Your task to perform on an android device: toggle pop-ups in chrome Image 0: 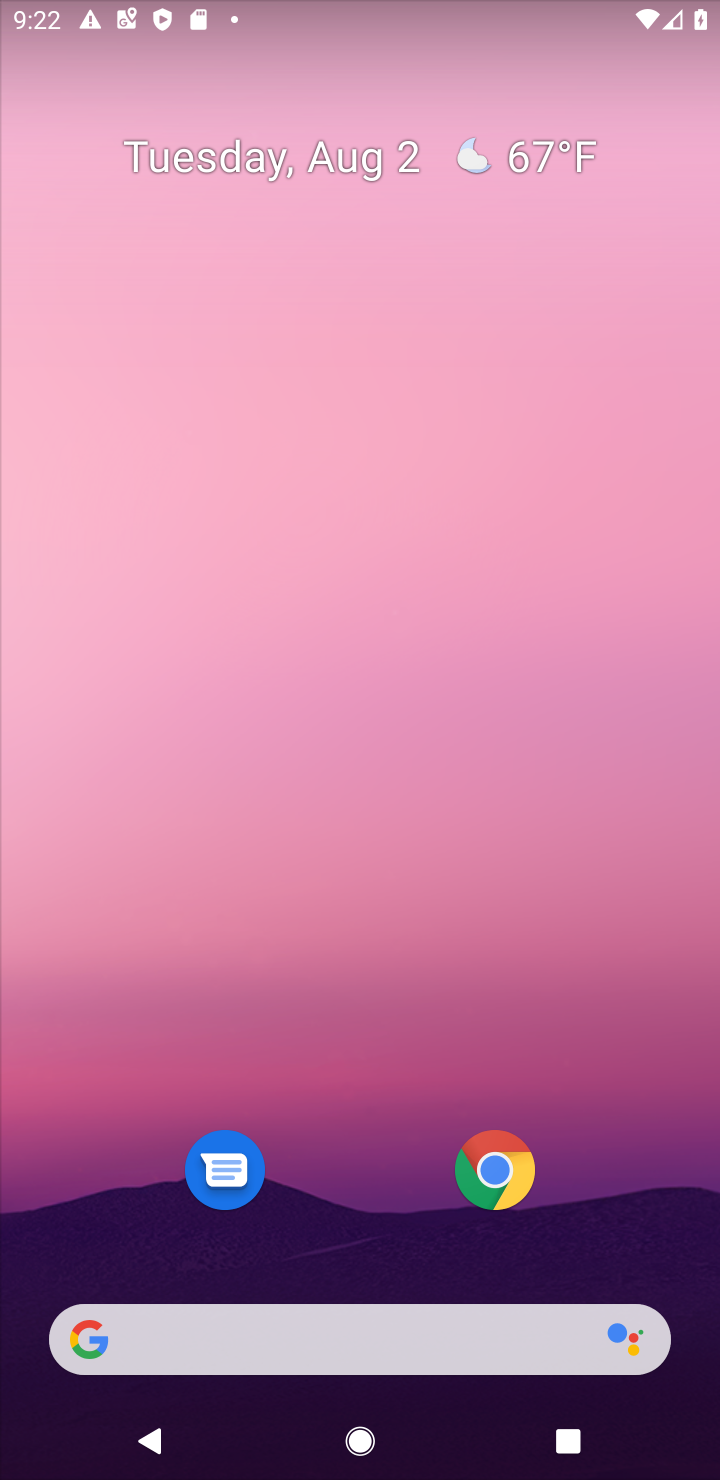
Step 0: click (491, 1181)
Your task to perform on an android device: toggle pop-ups in chrome Image 1: 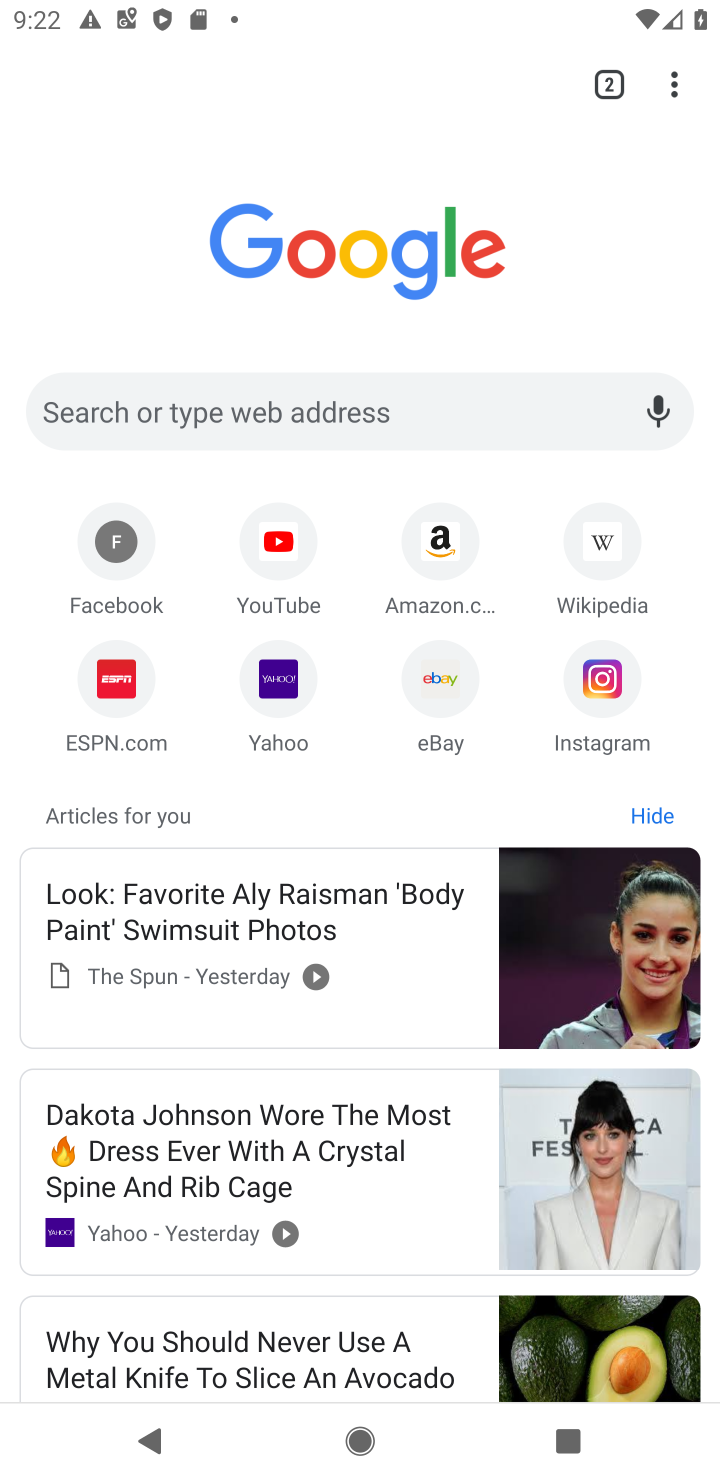
Step 1: click (667, 79)
Your task to perform on an android device: toggle pop-ups in chrome Image 2: 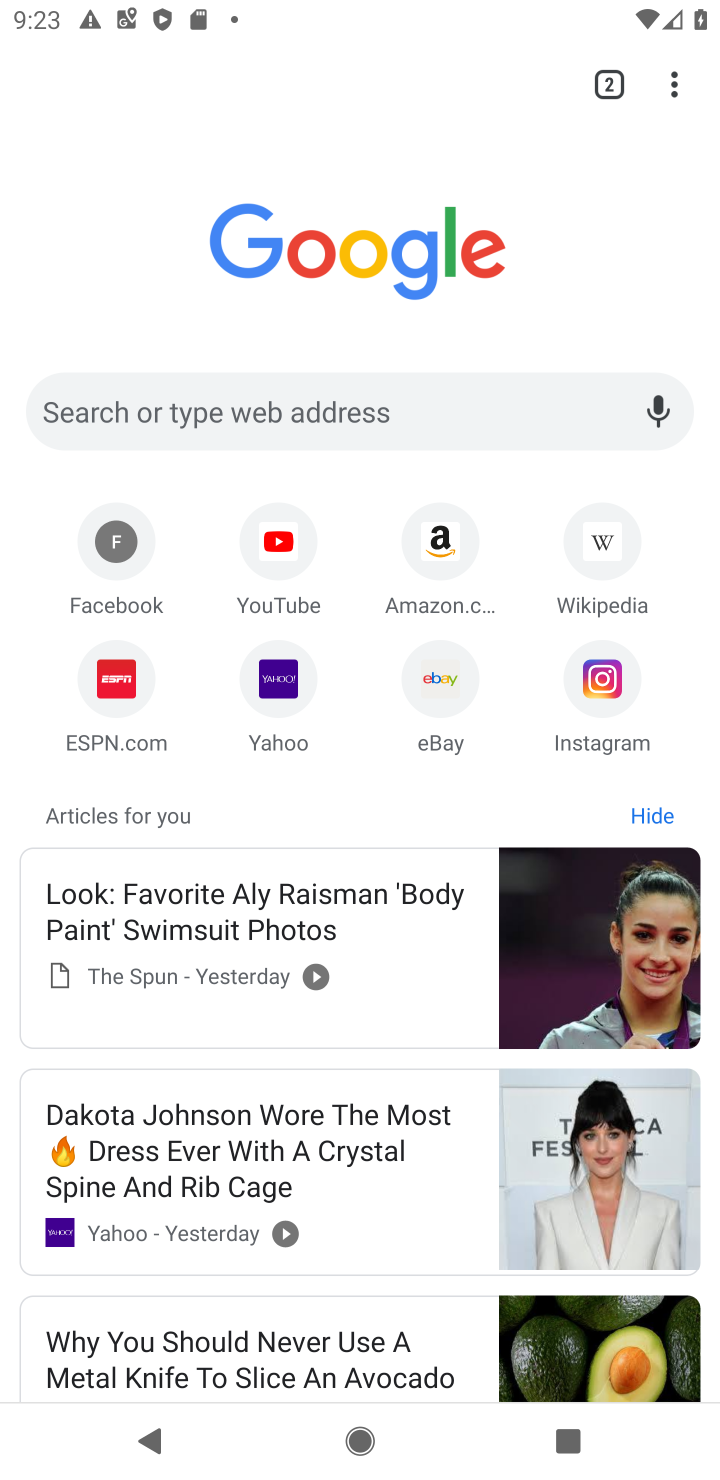
Step 2: click (670, 85)
Your task to perform on an android device: toggle pop-ups in chrome Image 3: 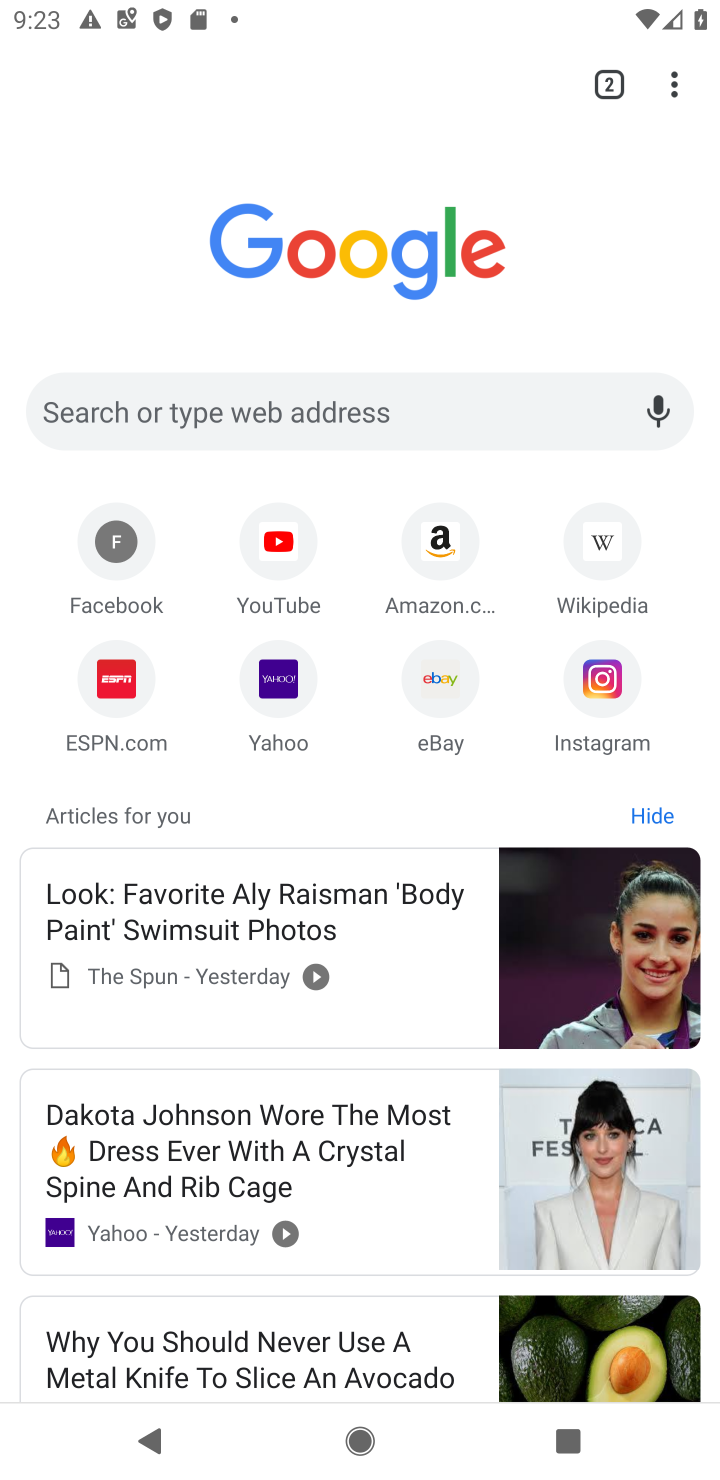
Step 3: click (670, 85)
Your task to perform on an android device: toggle pop-ups in chrome Image 4: 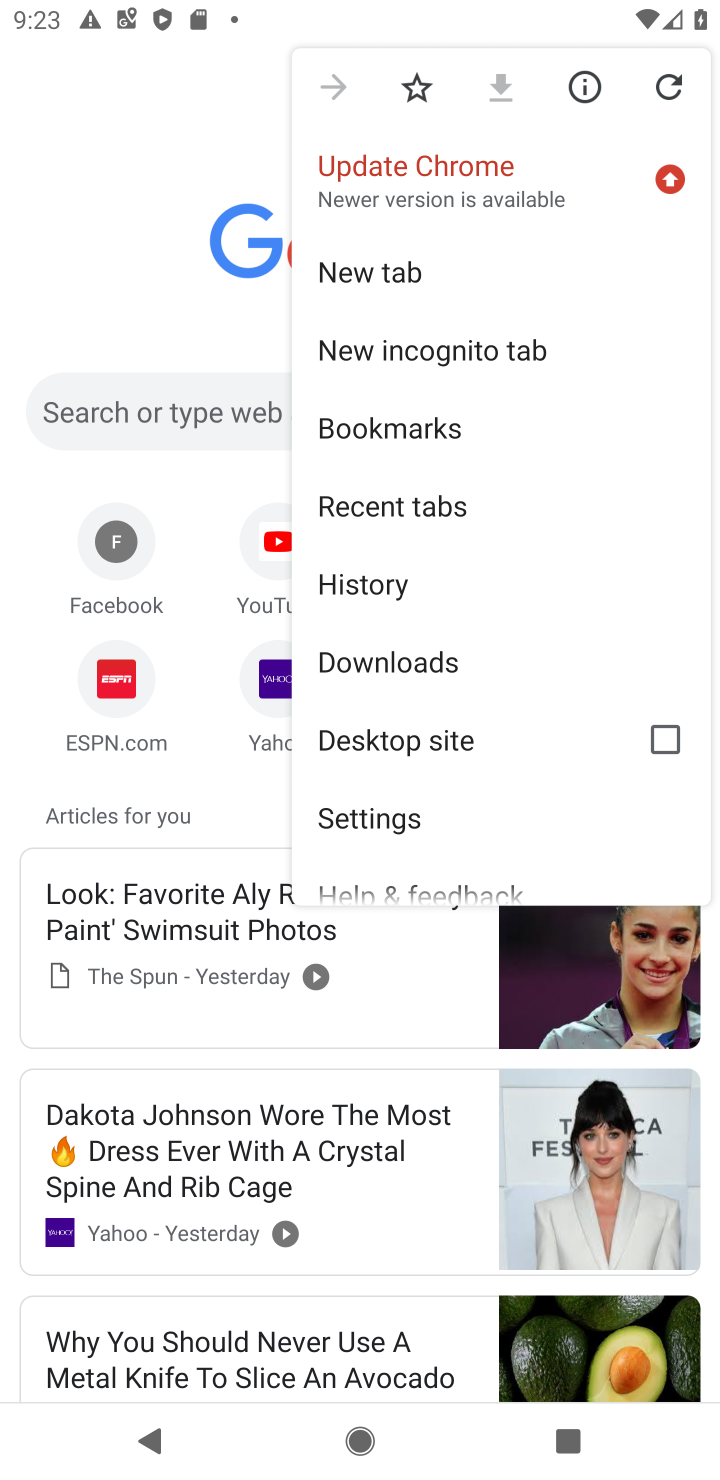
Step 4: click (349, 831)
Your task to perform on an android device: toggle pop-ups in chrome Image 5: 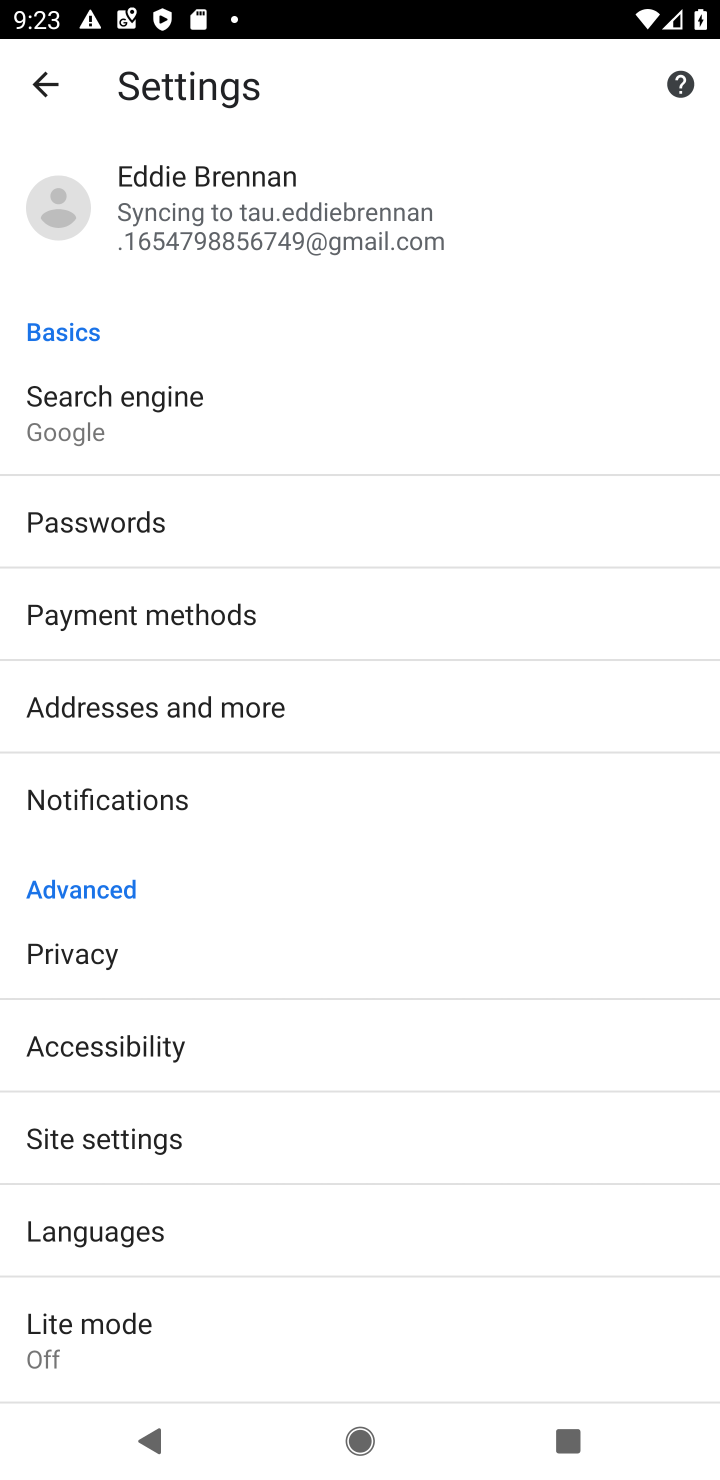
Step 5: click (101, 1141)
Your task to perform on an android device: toggle pop-ups in chrome Image 6: 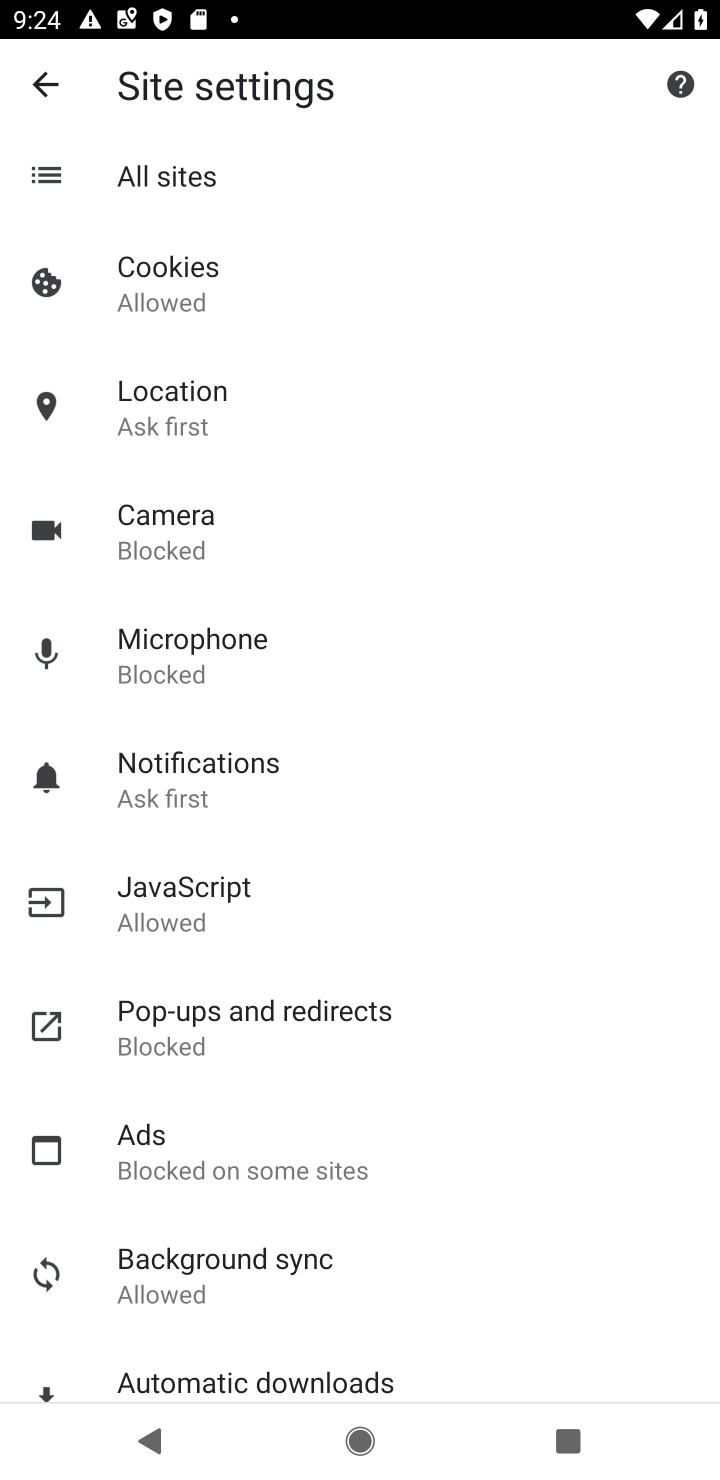
Step 6: drag from (234, 1226) to (292, 451)
Your task to perform on an android device: toggle pop-ups in chrome Image 7: 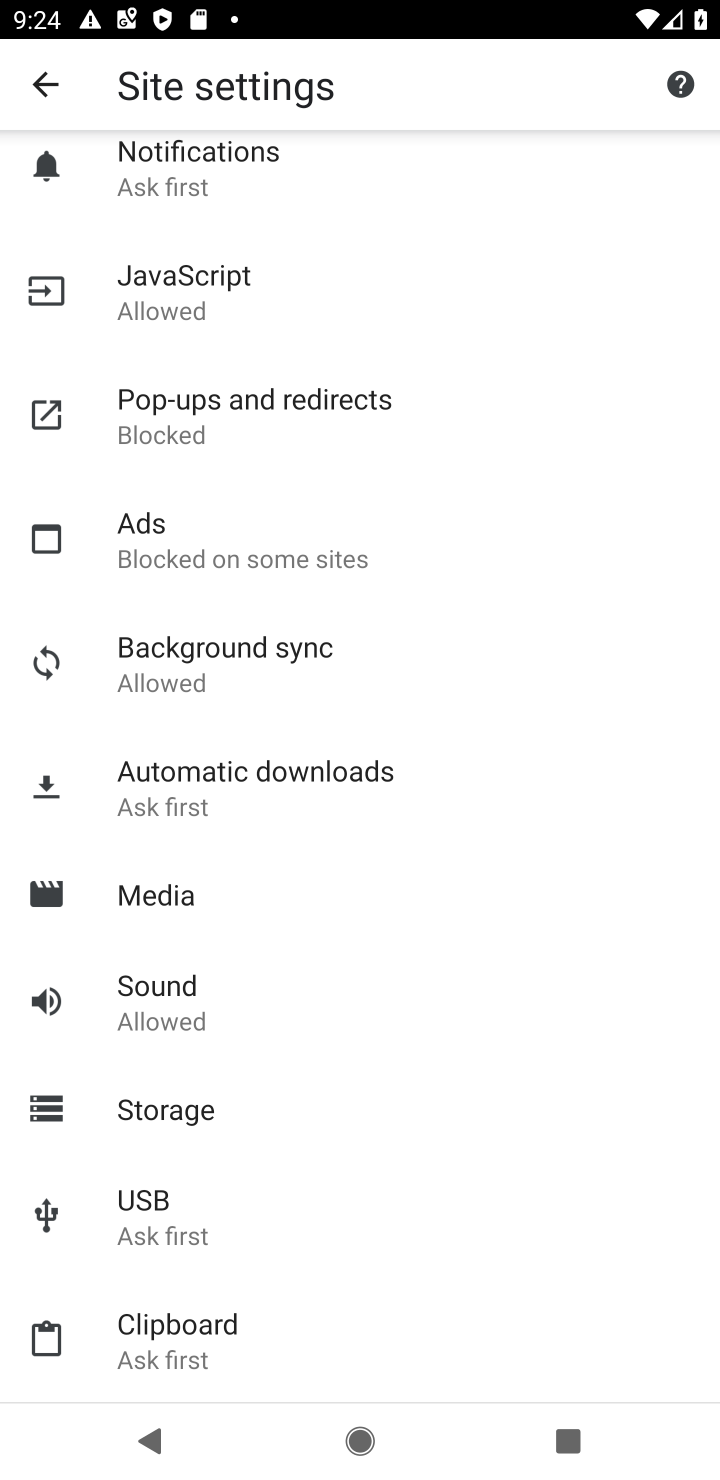
Step 7: click (246, 419)
Your task to perform on an android device: toggle pop-ups in chrome Image 8: 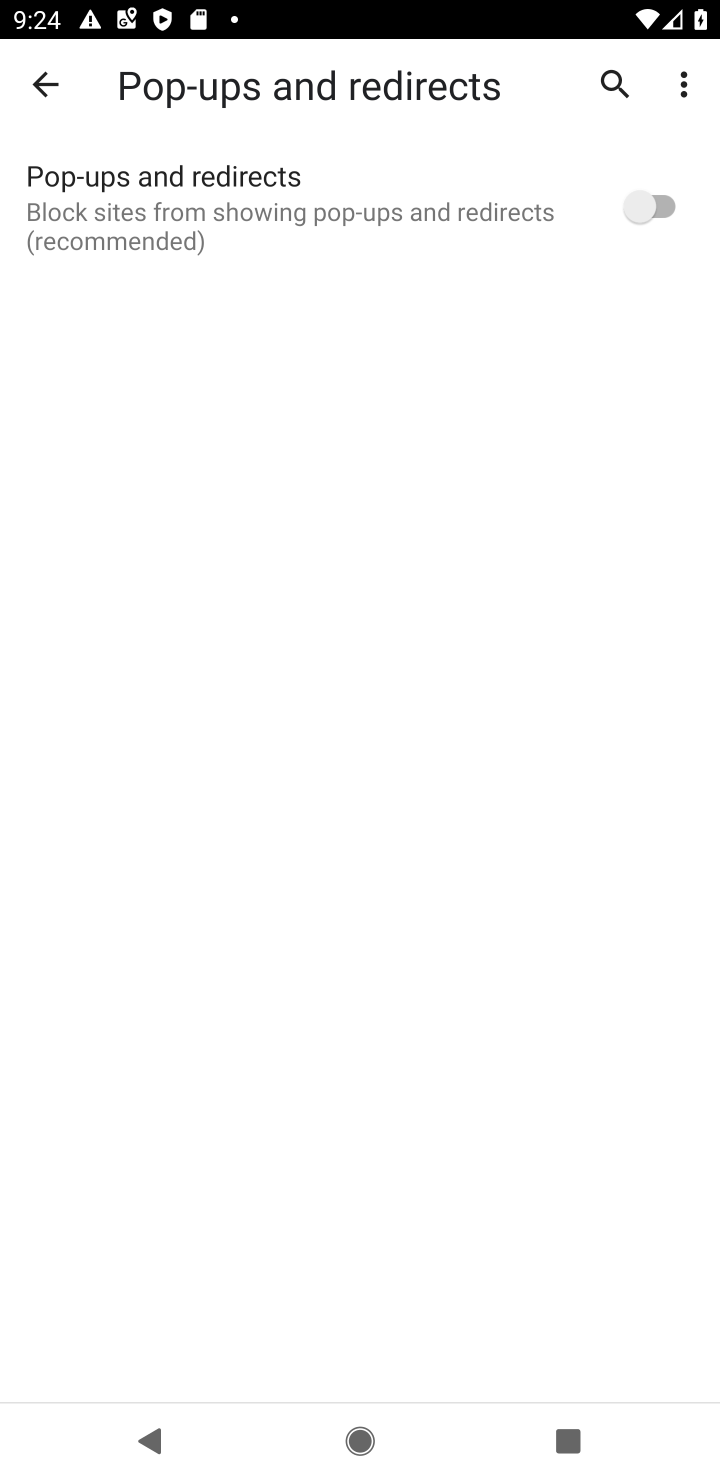
Step 8: click (674, 200)
Your task to perform on an android device: toggle pop-ups in chrome Image 9: 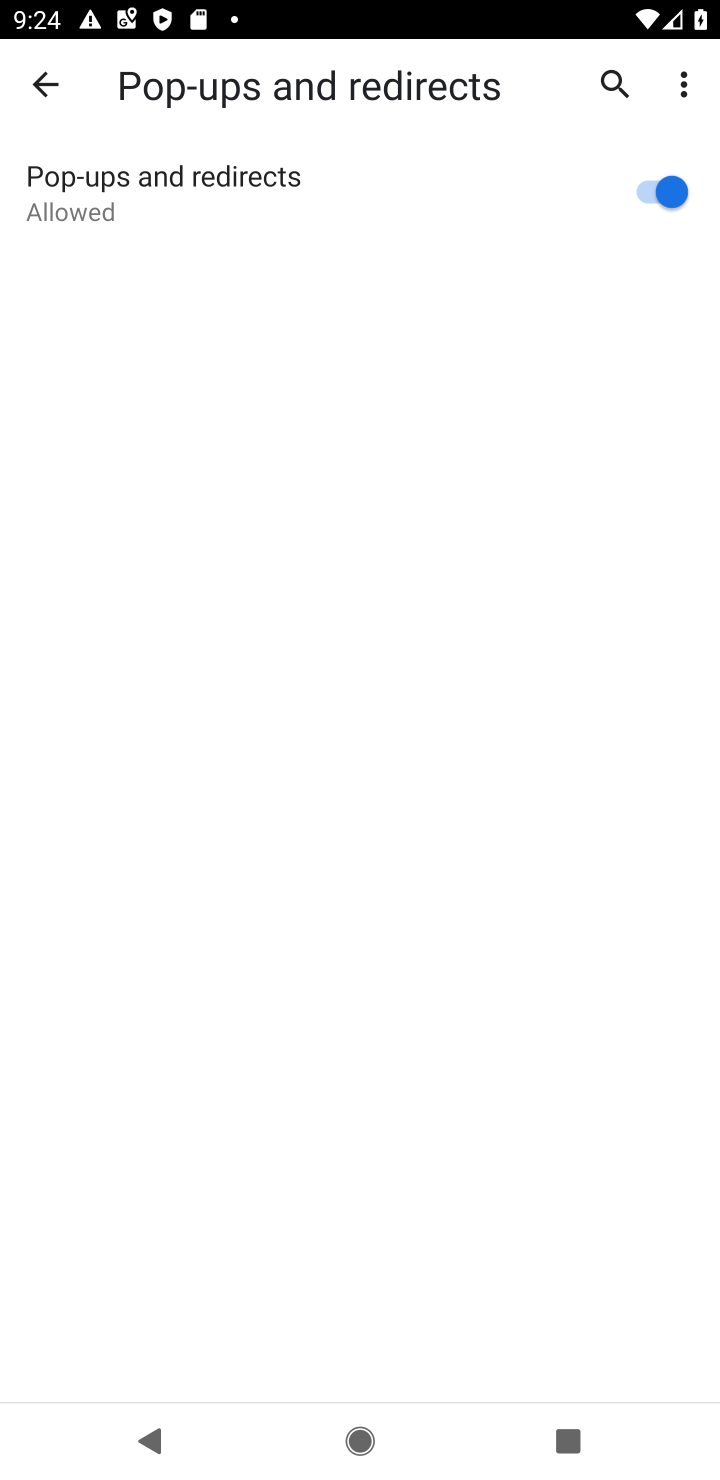
Step 9: task complete